Your task to perform on an android device: Show me recent news Image 0: 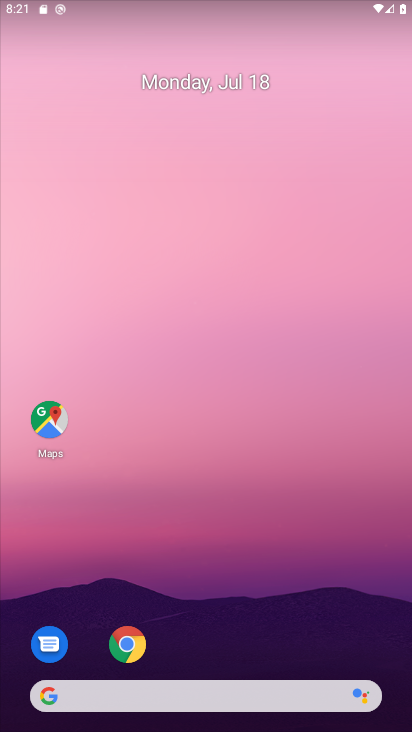
Step 0: drag from (233, 650) to (231, 109)
Your task to perform on an android device: Show me recent news Image 1: 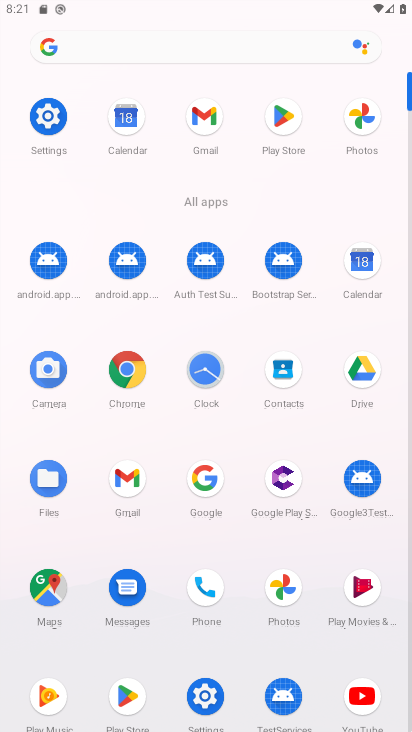
Step 1: click (185, 34)
Your task to perform on an android device: Show me recent news Image 2: 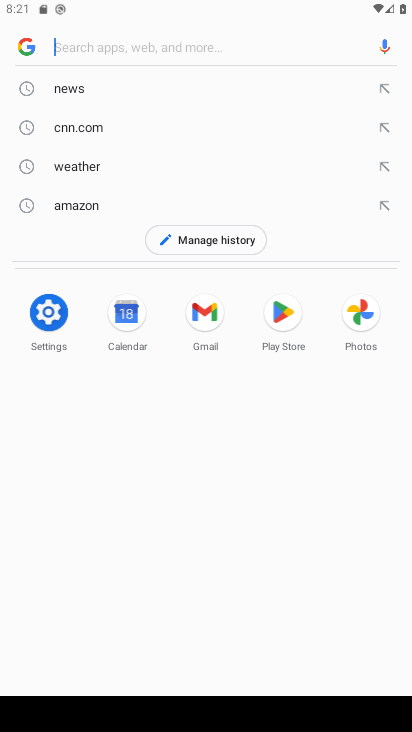
Step 2: click (184, 78)
Your task to perform on an android device: Show me recent news Image 3: 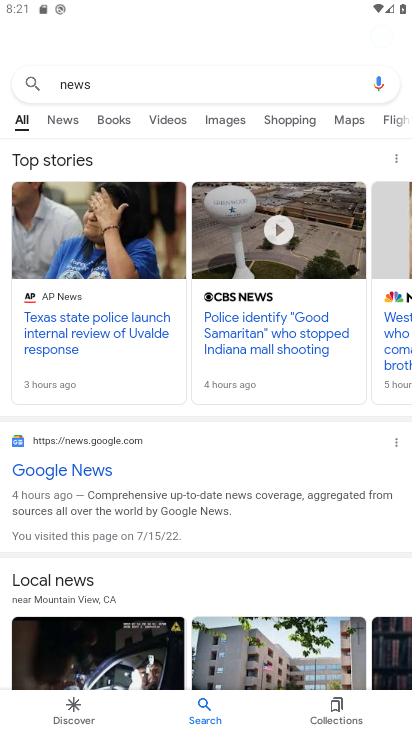
Step 3: task complete